Your task to perform on an android device: turn off improve location accuracy Image 0: 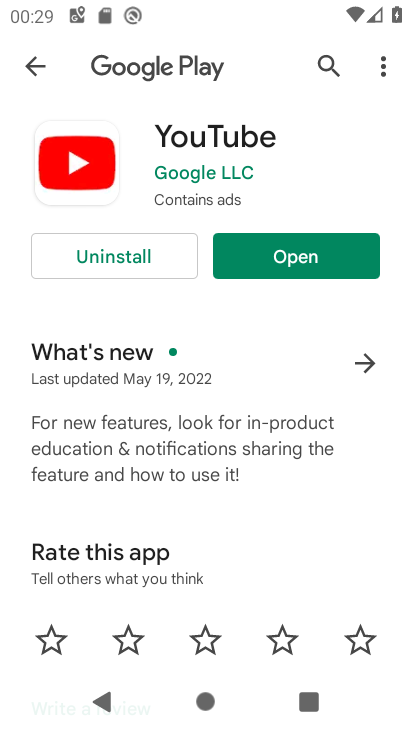
Step 0: press home button
Your task to perform on an android device: turn off improve location accuracy Image 1: 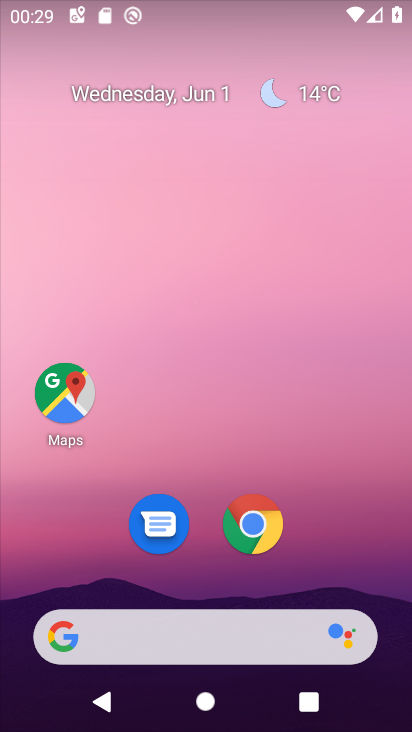
Step 1: drag from (276, 467) to (255, 0)
Your task to perform on an android device: turn off improve location accuracy Image 2: 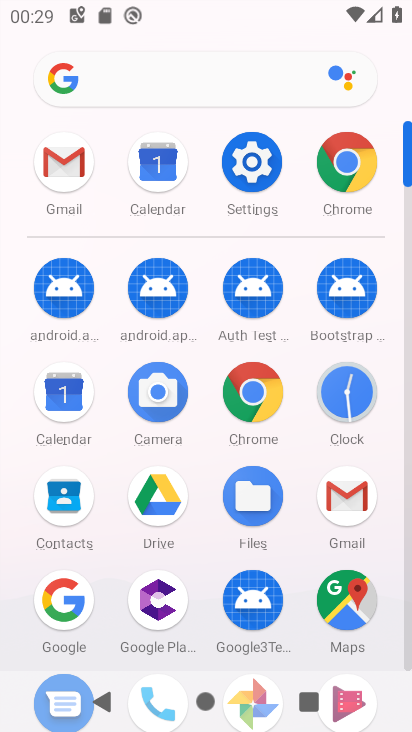
Step 2: click (245, 157)
Your task to perform on an android device: turn off improve location accuracy Image 3: 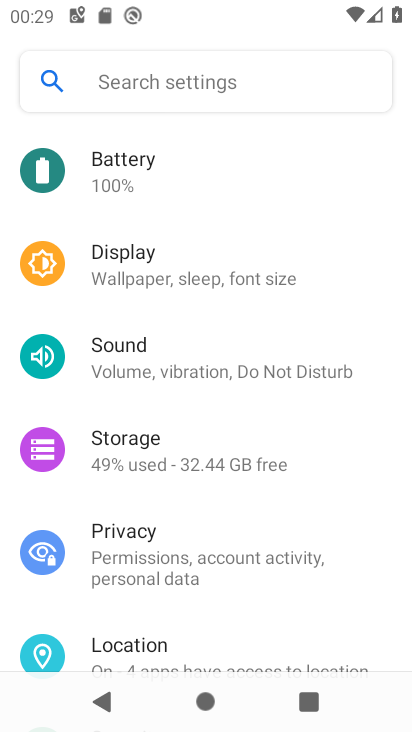
Step 3: drag from (244, 527) to (238, 229)
Your task to perform on an android device: turn off improve location accuracy Image 4: 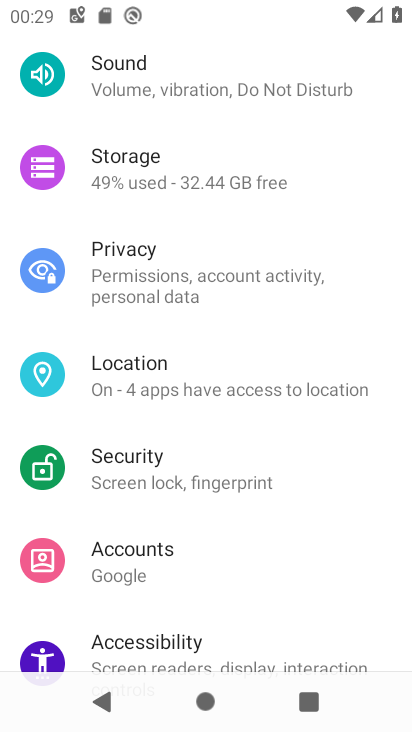
Step 4: click (220, 366)
Your task to perform on an android device: turn off improve location accuracy Image 5: 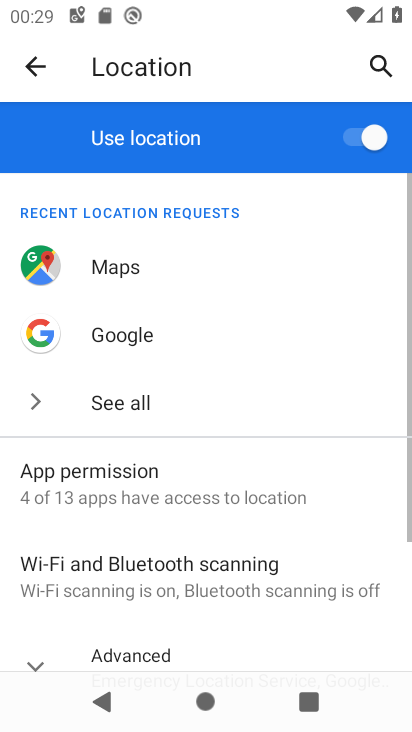
Step 5: drag from (203, 483) to (217, 259)
Your task to perform on an android device: turn off improve location accuracy Image 6: 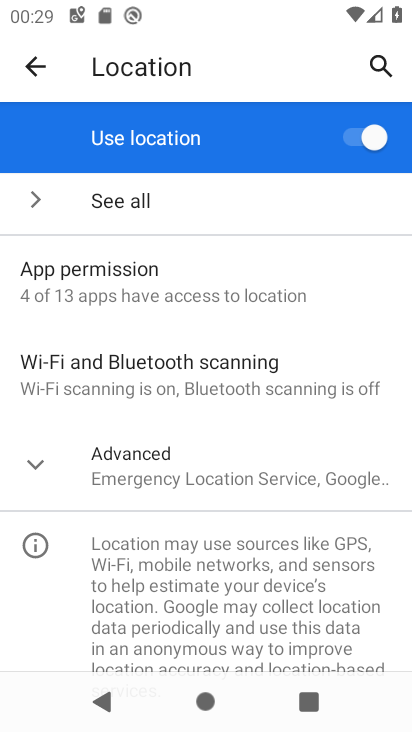
Step 6: click (33, 467)
Your task to perform on an android device: turn off improve location accuracy Image 7: 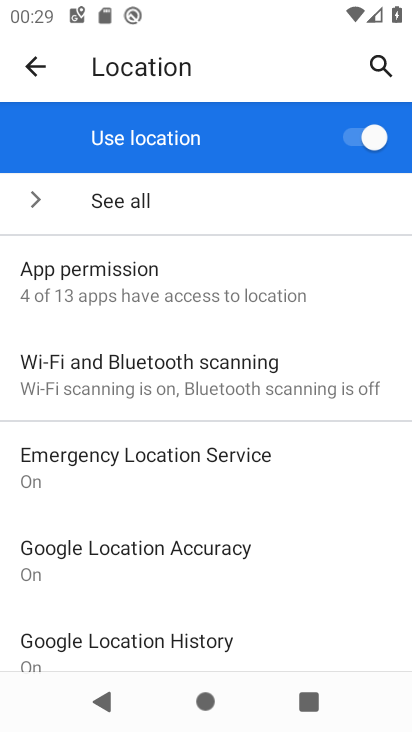
Step 7: click (235, 561)
Your task to perform on an android device: turn off improve location accuracy Image 8: 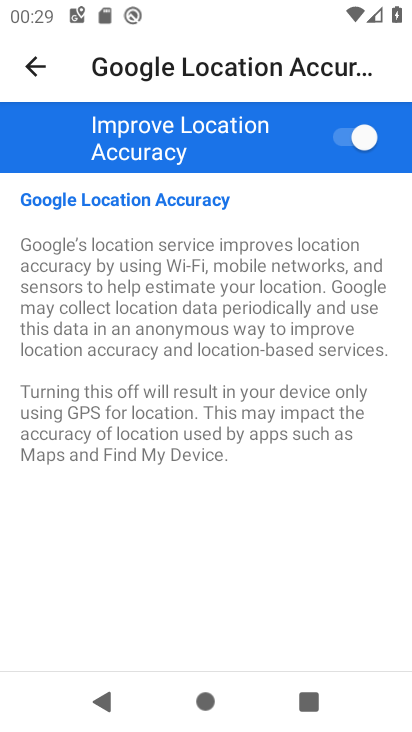
Step 8: click (354, 143)
Your task to perform on an android device: turn off improve location accuracy Image 9: 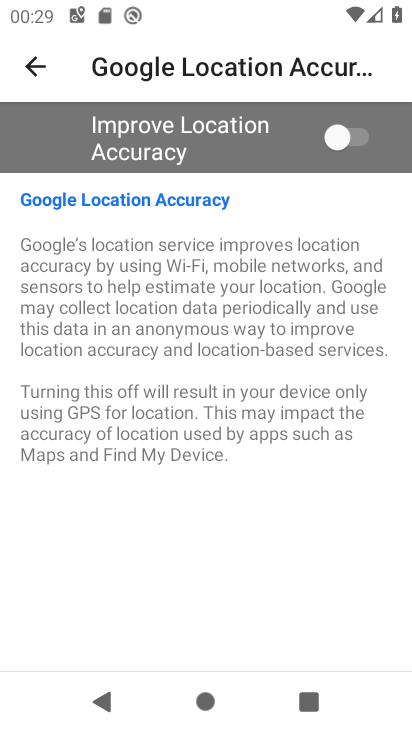
Step 9: task complete